Your task to perform on an android device: remove spam from my inbox in the gmail app Image 0: 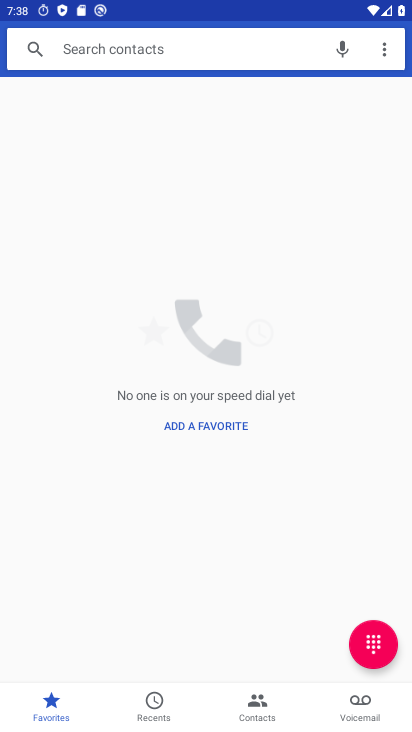
Step 0: press home button
Your task to perform on an android device: remove spam from my inbox in the gmail app Image 1: 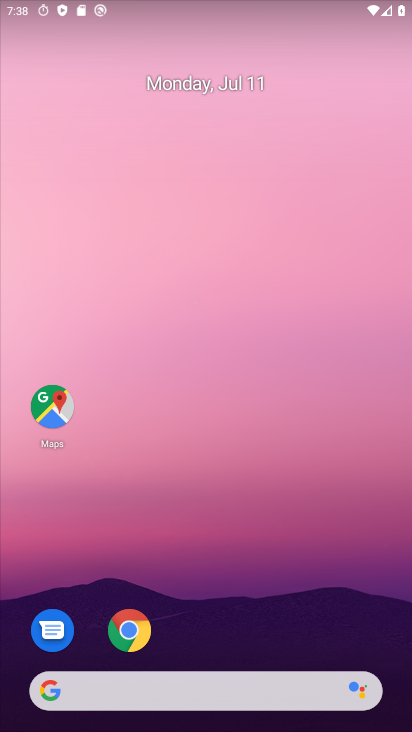
Step 1: drag from (191, 694) to (285, 301)
Your task to perform on an android device: remove spam from my inbox in the gmail app Image 2: 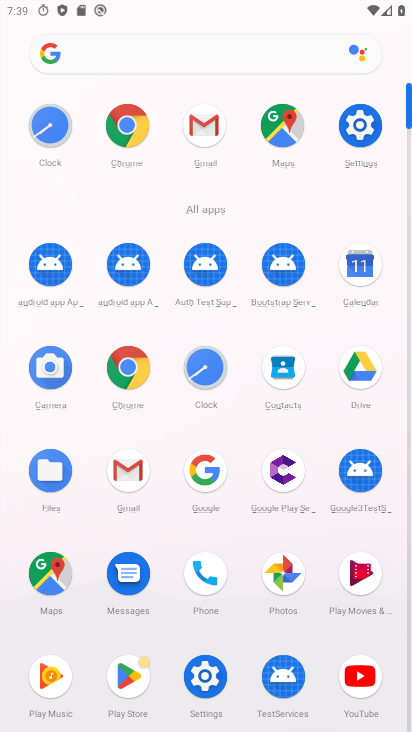
Step 2: click (199, 124)
Your task to perform on an android device: remove spam from my inbox in the gmail app Image 3: 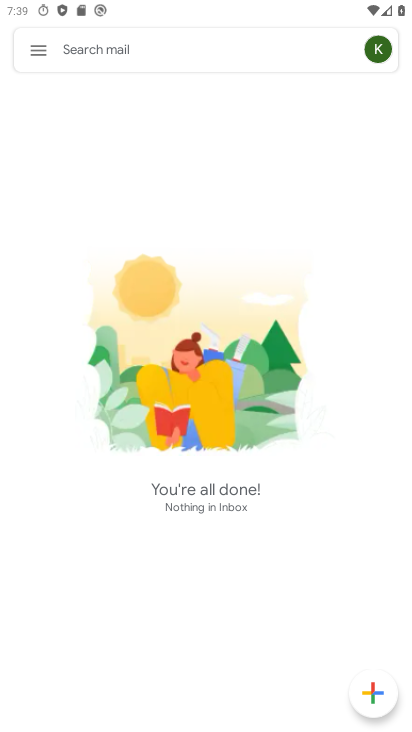
Step 3: click (32, 49)
Your task to perform on an android device: remove spam from my inbox in the gmail app Image 4: 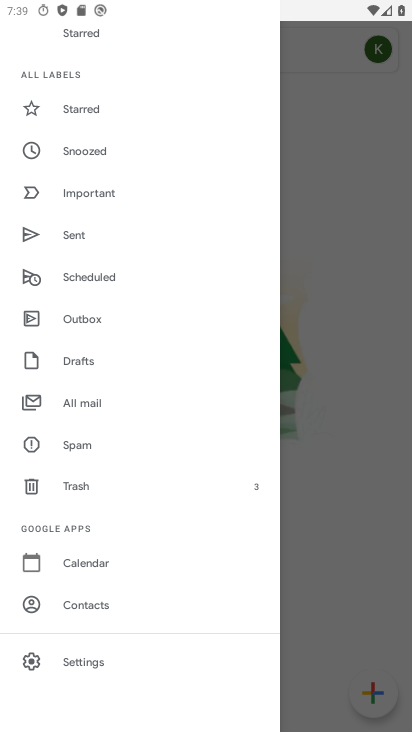
Step 4: click (82, 443)
Your task to perform on an android device: remove spam from my inbox in the gmail app Image 5: 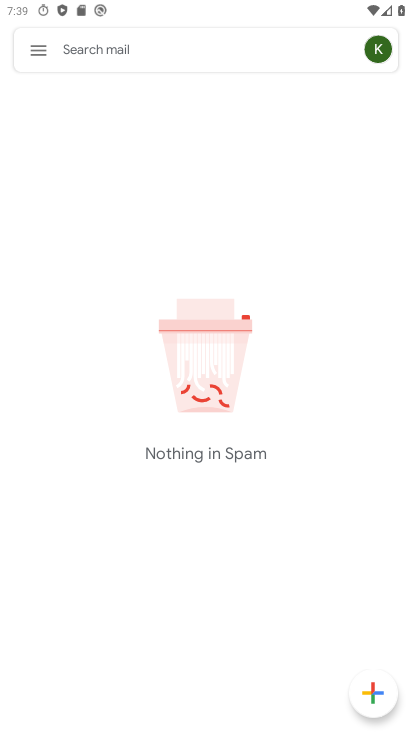
Step 5: task complete